Your task to perform on an android device: Search for "razer thresher" on target.com, select the first entry, add it to the cart, then select checkout. Image 0: 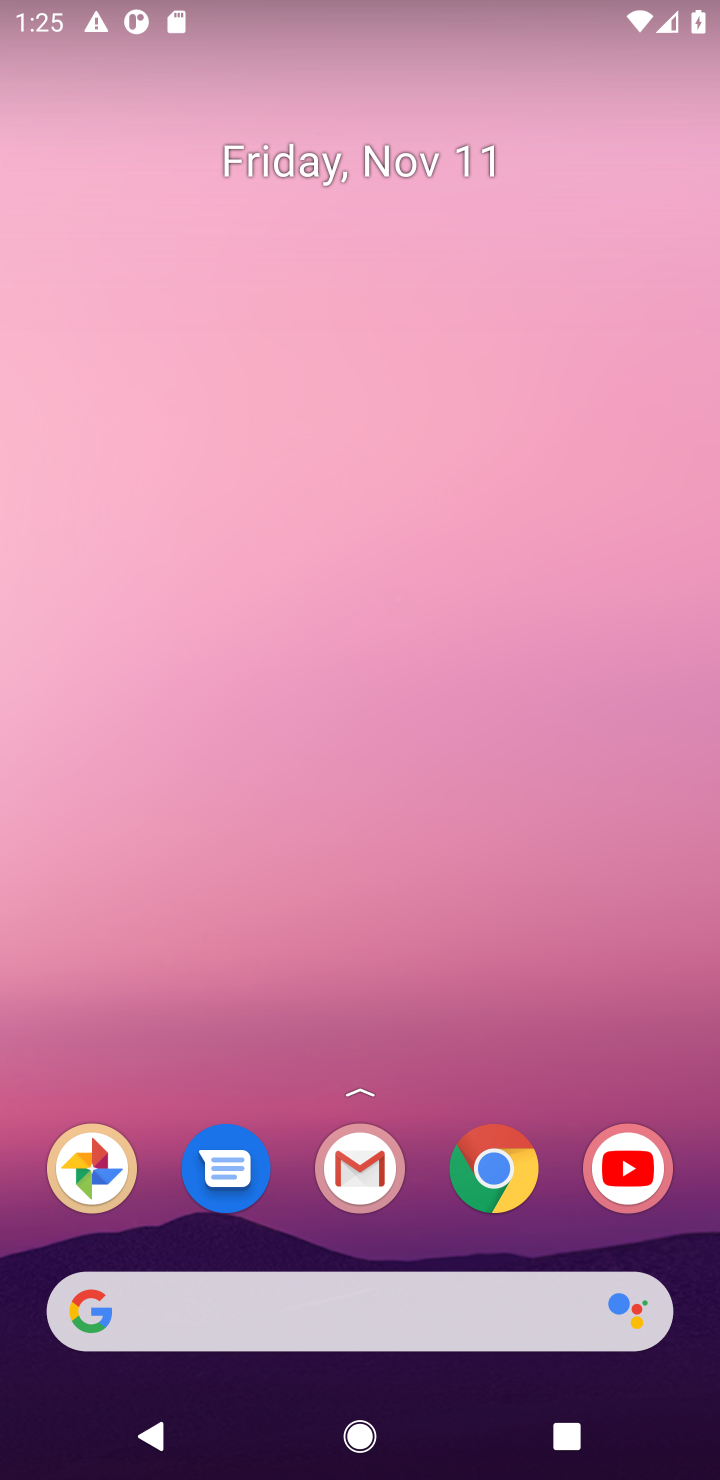
Step 0: click (500, 1185)
Your task to perform on an android device: Search for "razer thresher" on target.com, select the first entry, add it to the cart, then select checkout. Image 1: 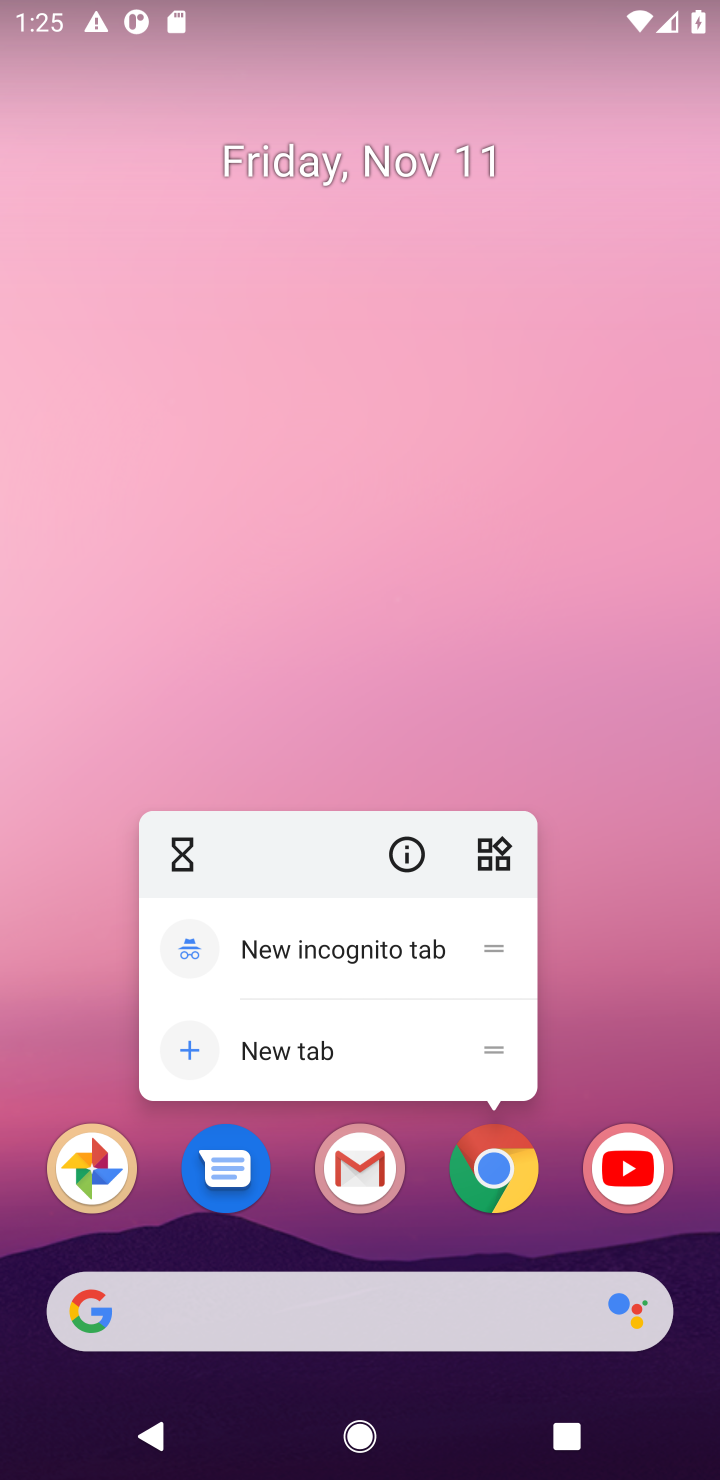
Step 1: click (498, 1177)
Your task to perform on an android device: Search for "razer thresher" on target.com, select the first entry, add it to the cart, then select checkout. Image 2: 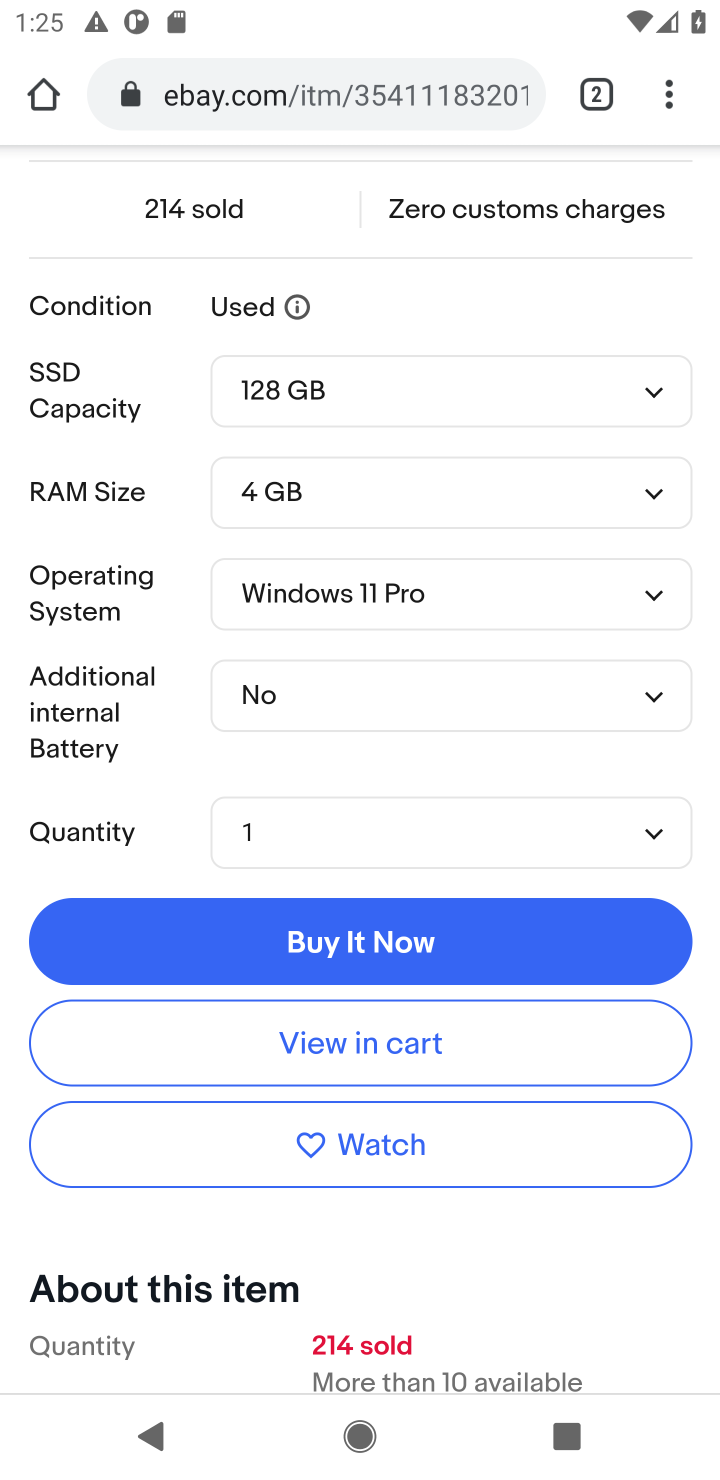
Step 2: click (299, 103)
Your task to perform on an android device: Search for "razer thresher" on target.com, select the first entry, add it to the cart, then select checkout. Image 3: 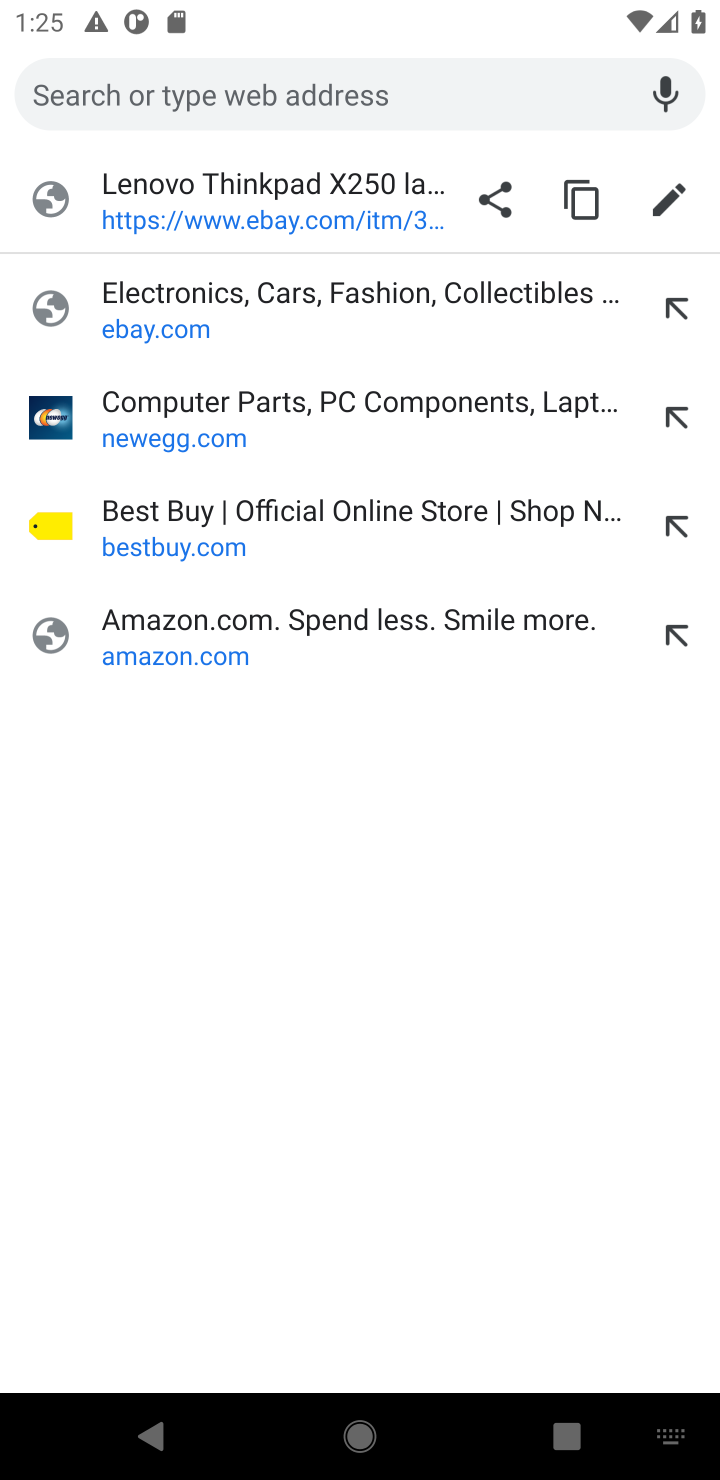
Step 3: click (194, 109)
Your task to perform on an android device: Search for "razer thresher" on target.com, select the first entry, add it to the cart, then select checkout. Image 4: 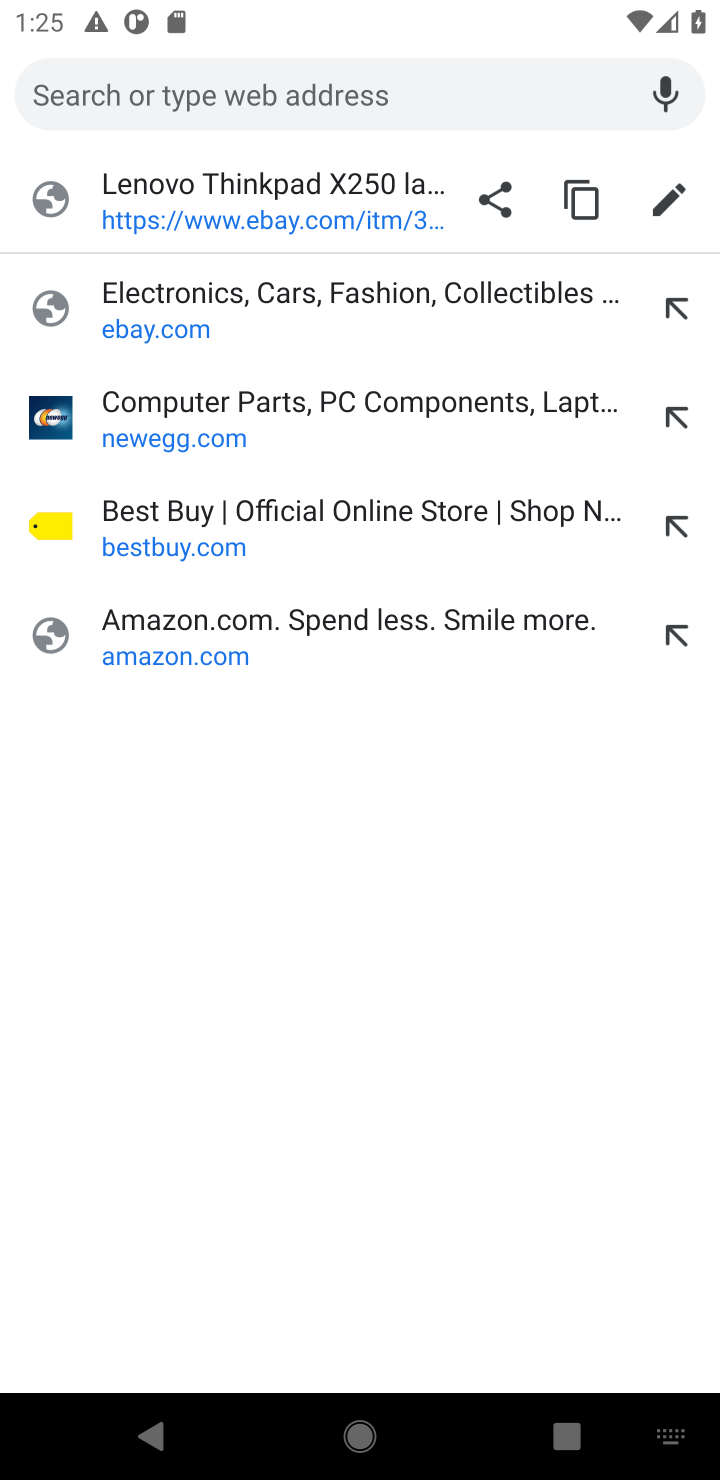
Step 4: type " target.com"
Your task to perform on an android device: Search for "razer thresher" on target.com, select the first entry, add it to the cart, then select checkout. Image 5: 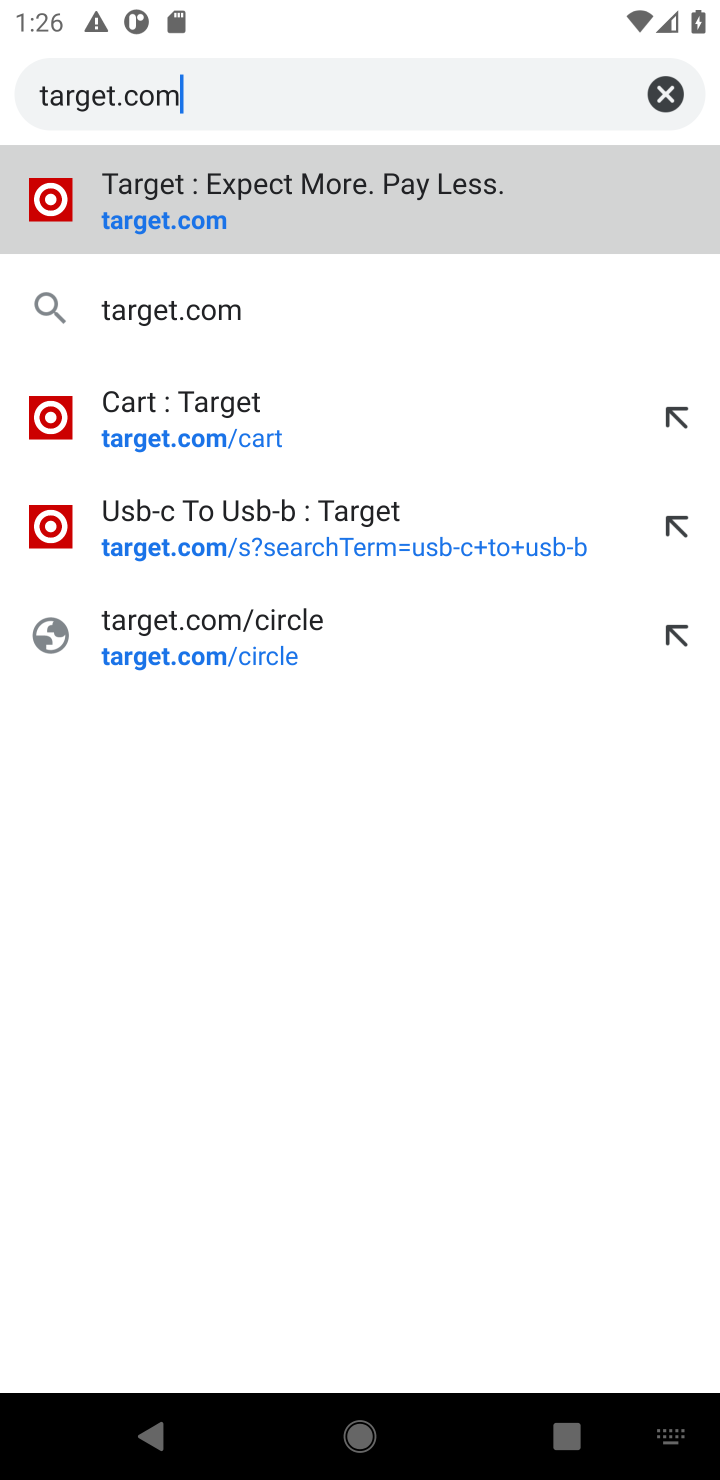
Step 5: click (204, 218)
Your task to perform on an android device: Search for "razer thresher" on target.com, select the first entry, add it to the cart, then select checkout. Image 6: 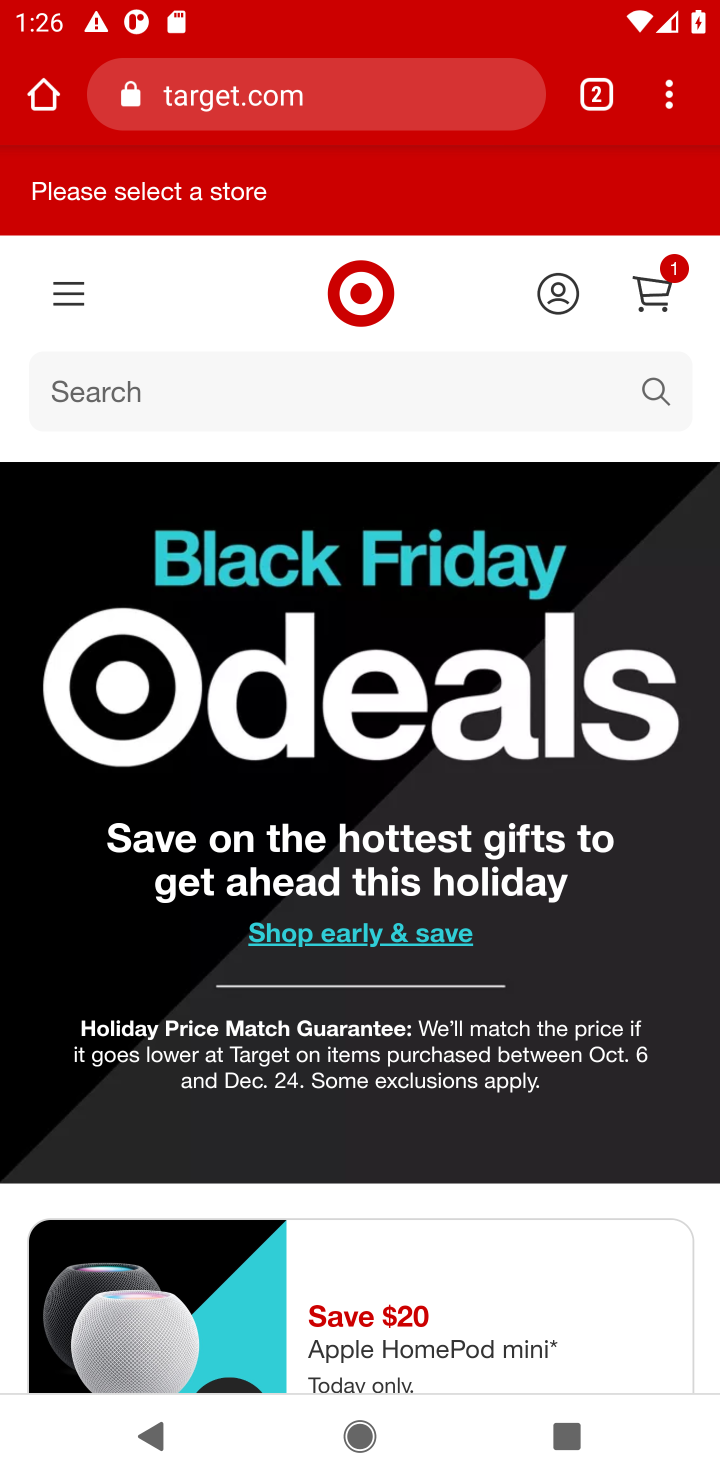
Step 6: click (651, 407)
Your task to perform on an android device: Search for "razer thresher" on target.com, select the first entry, add it to the cart, then select checkout. Image 7: 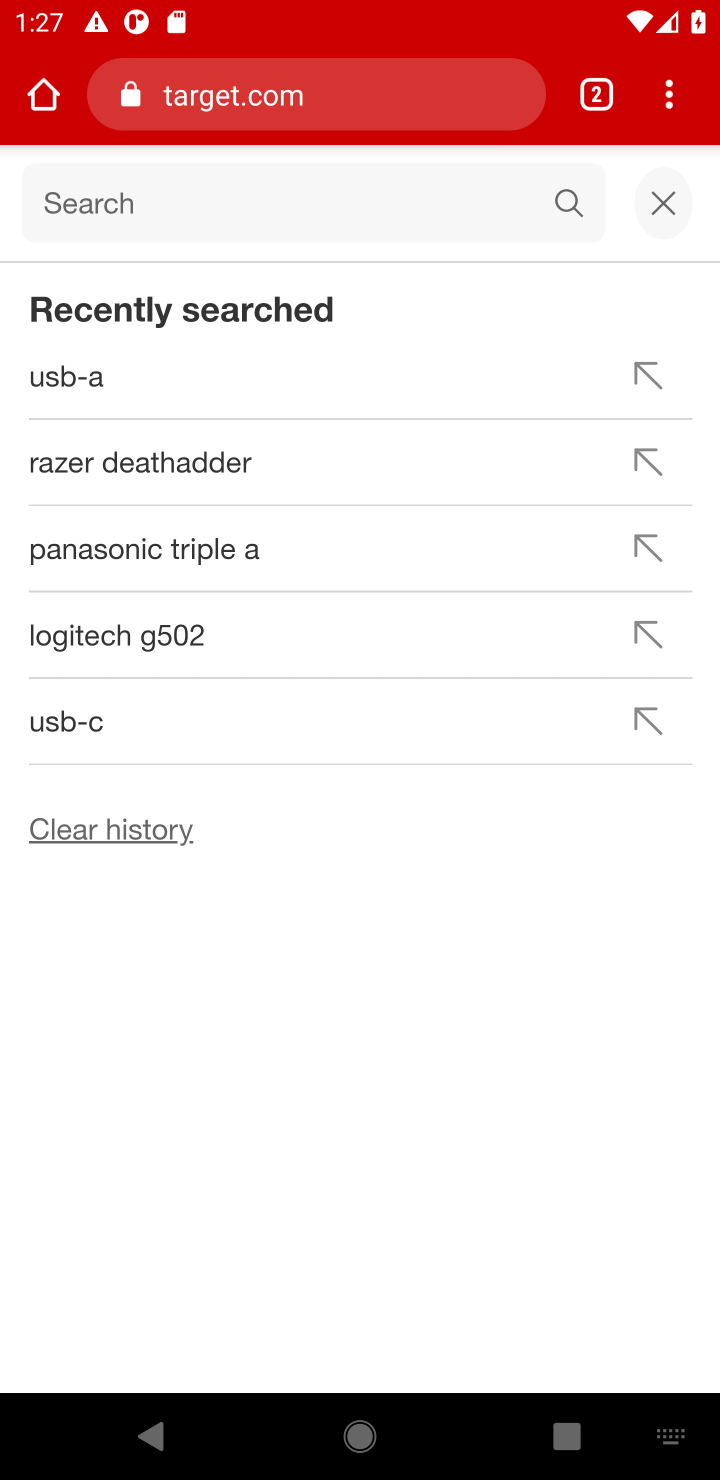
Step 7: type "razer thresher"
Your task to perform on an android device: Search for "razer thresher" on target.com, select the first entry, add it to the cart, then select checkout. Image 8: 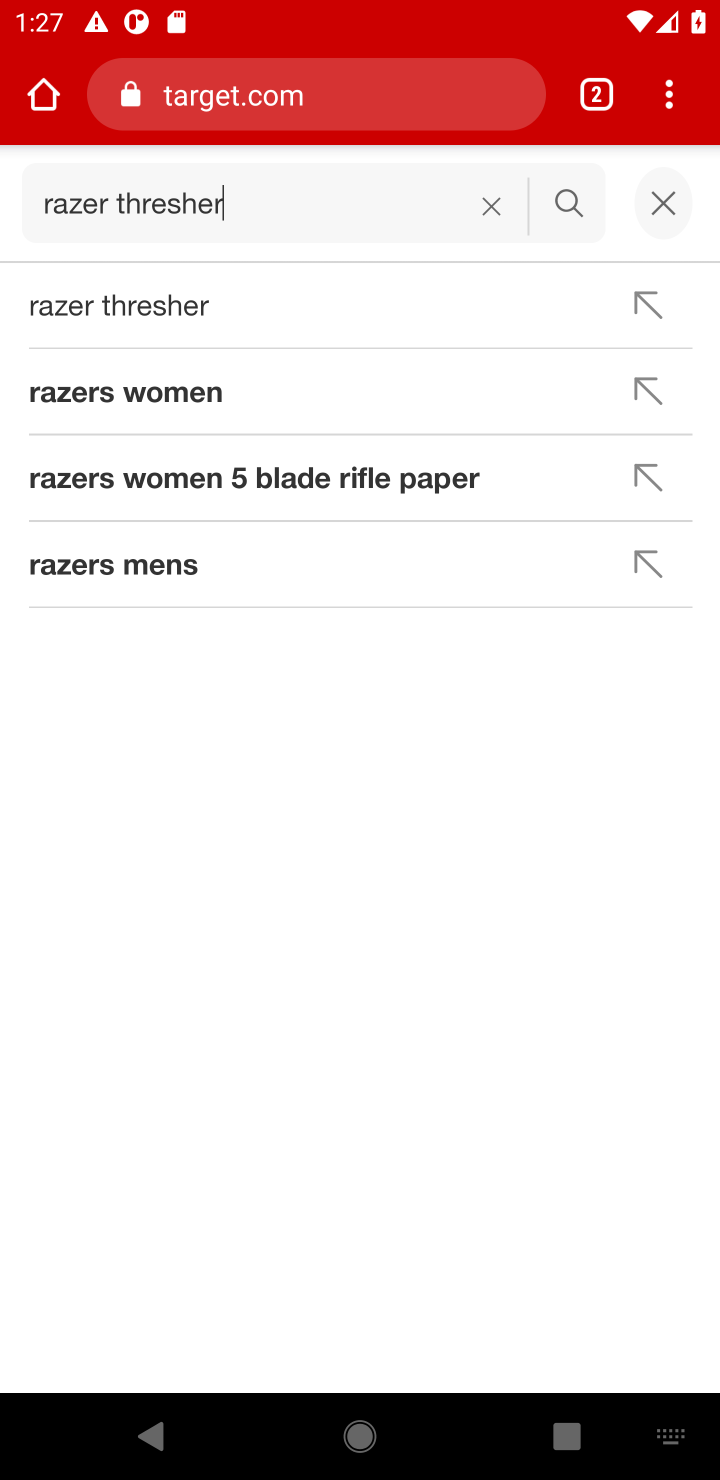
Step 8: click (109, 317)
Your task to perform on an android device: Search for "razer thresher" on target.com, select the first entry, add it to the cart, then select checkout. Image 9: 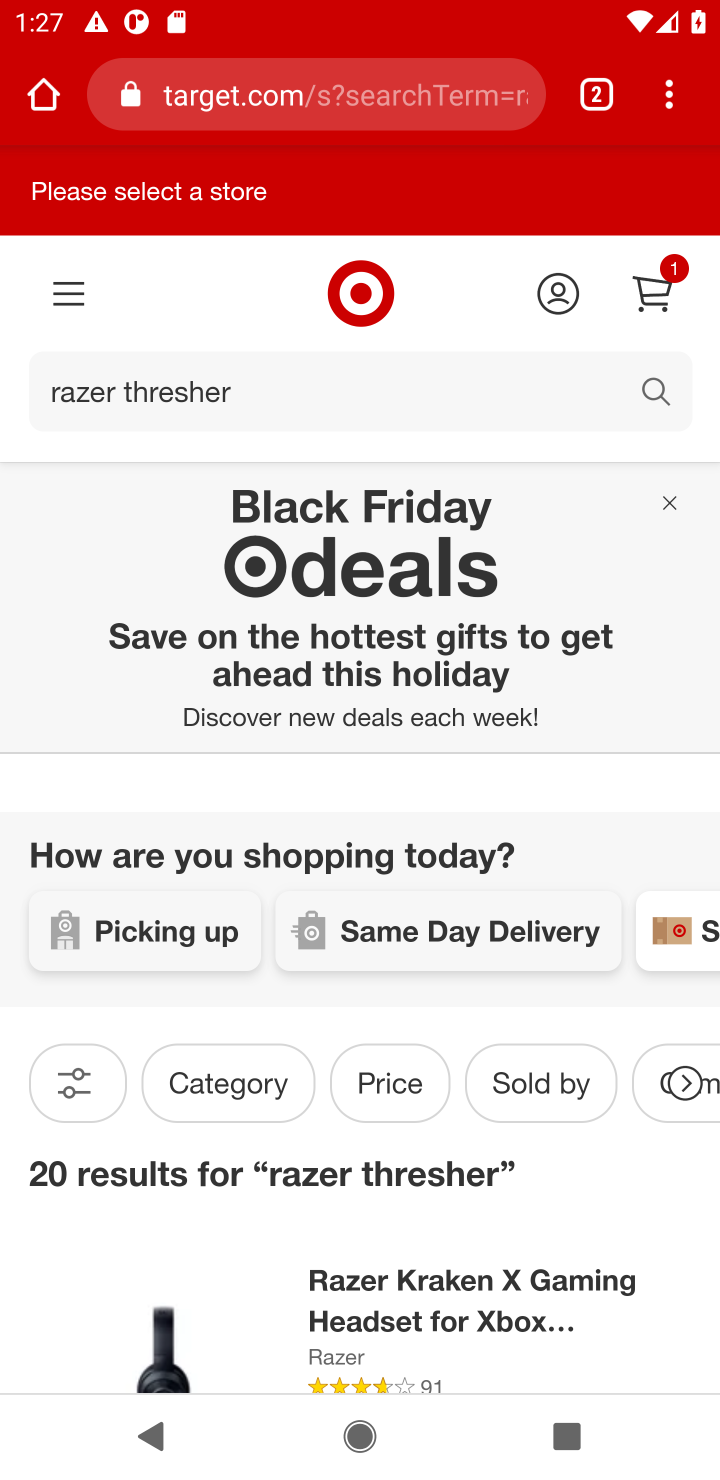
Step 9: drag from (311, 832) to (339, 277)
Your task to perform on an android device: Search for "razer thresher" on target.com, select the first entry, add it to the cart, then select checkout. Image 10: 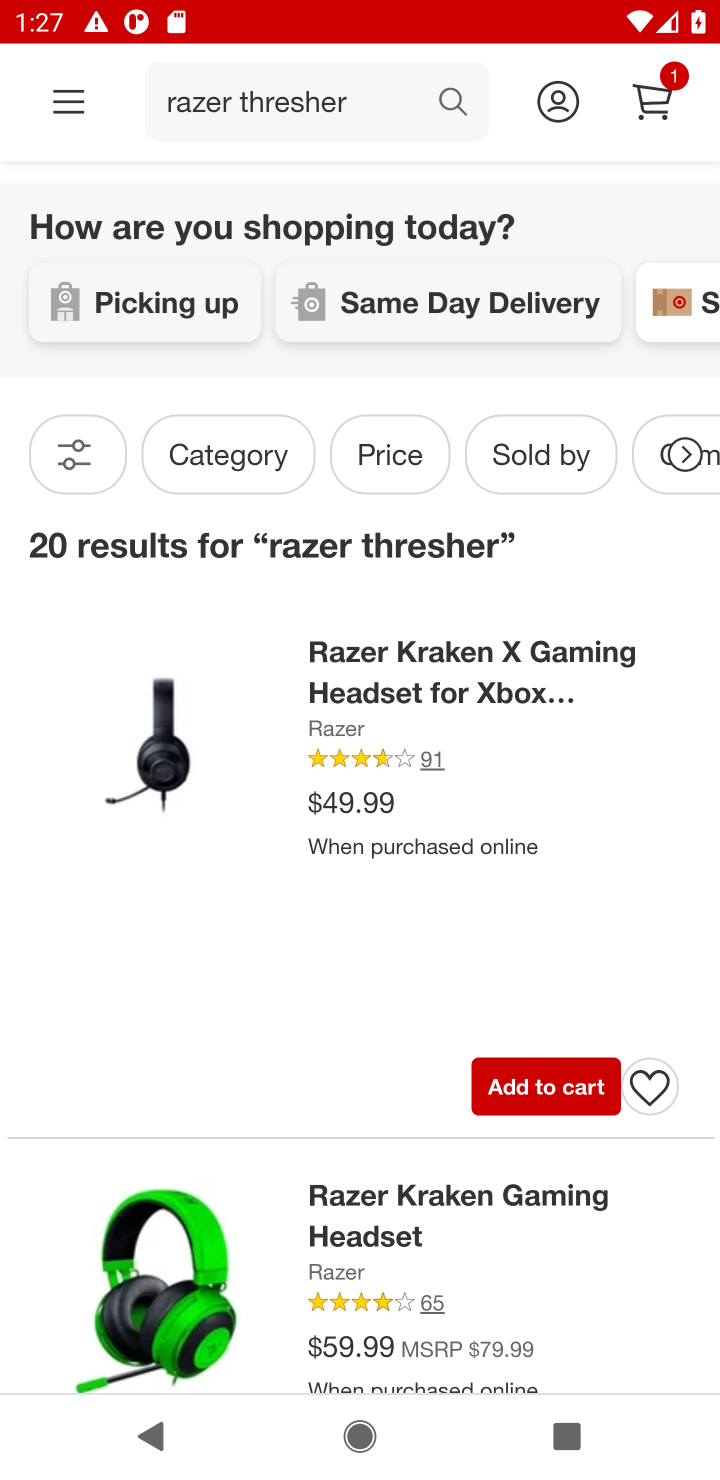
Step 10: click (518, 1098)
Your task to perform on an android device: Search for "razer thresher" on target.com, select the first entry, add it to the cart, then select checkout. Image 11: 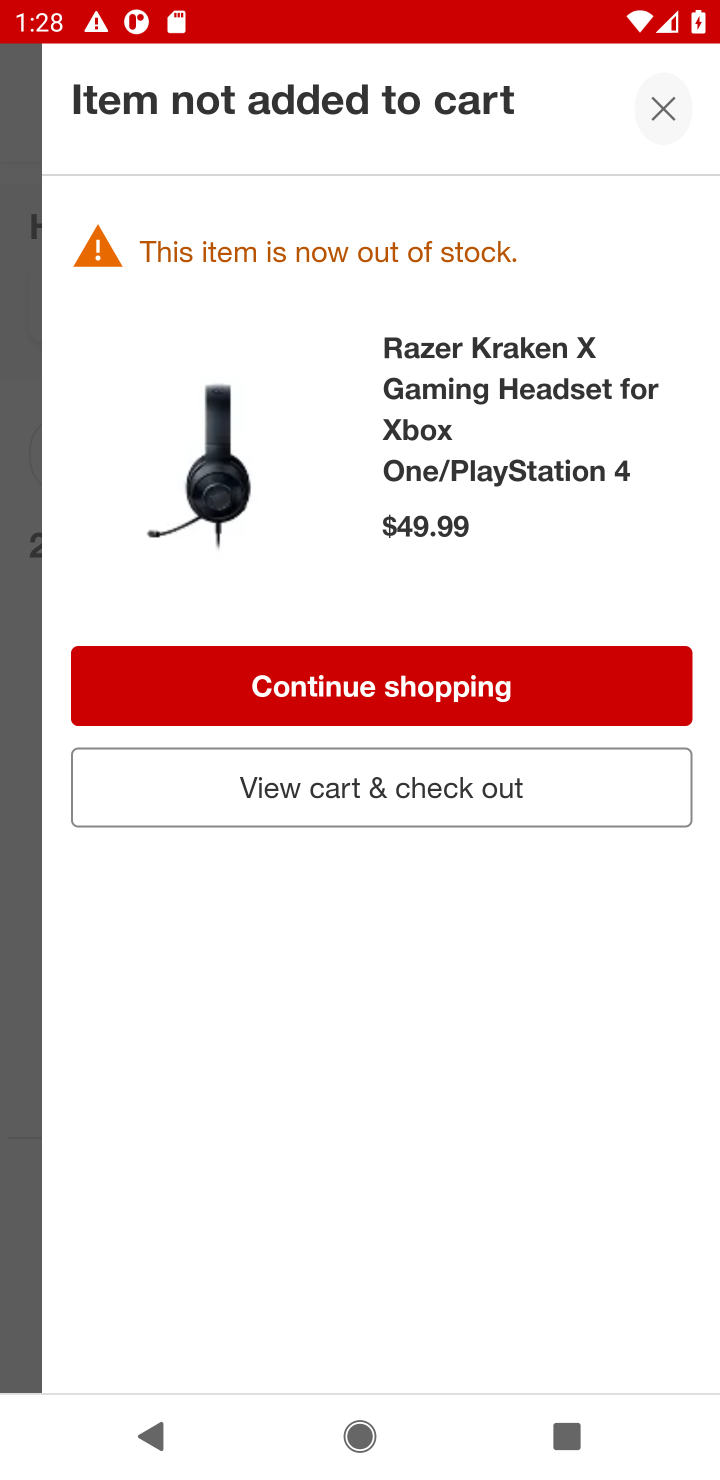
Step 11: click (345, 780)
Your task to perform on an android device: Search for "razer thresher" on target.com, select the first entry, add it to the cart, then select checkout. Image 12: 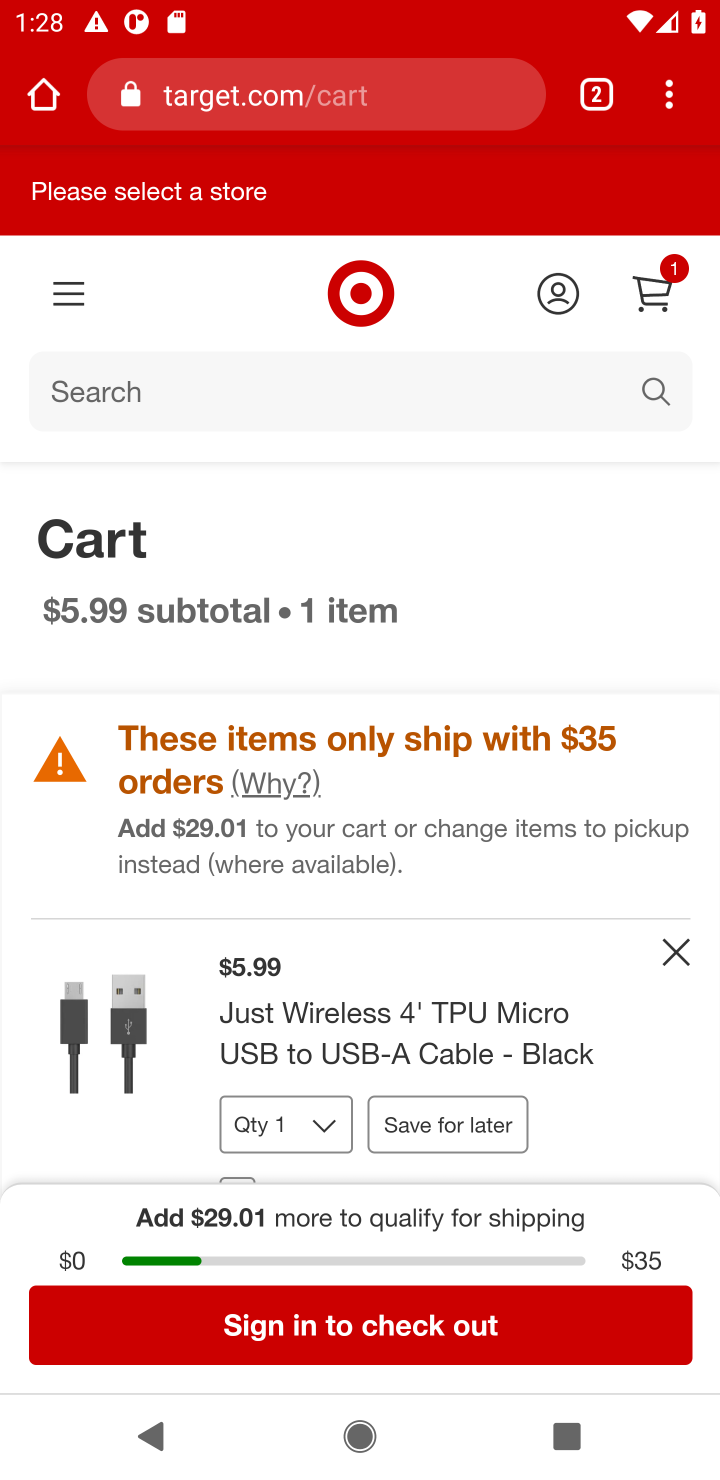
Step 12: task complete